Your task to perform on an android device: toggle wifi Image 0: 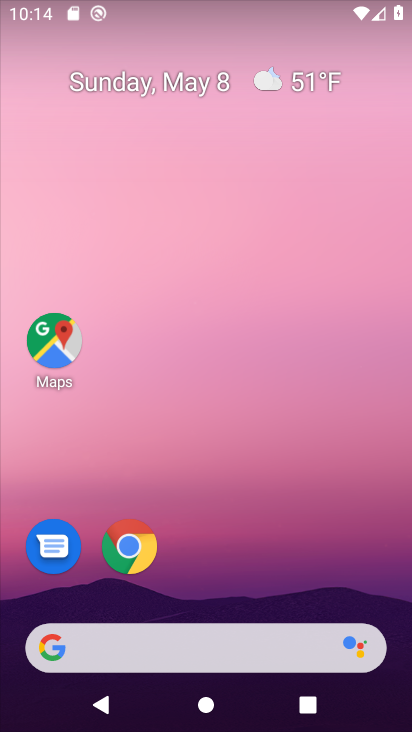
Step 0: drag from (389, 622) to (357, 54)
Your task to perform on an android device: toggle wifi Image 1: 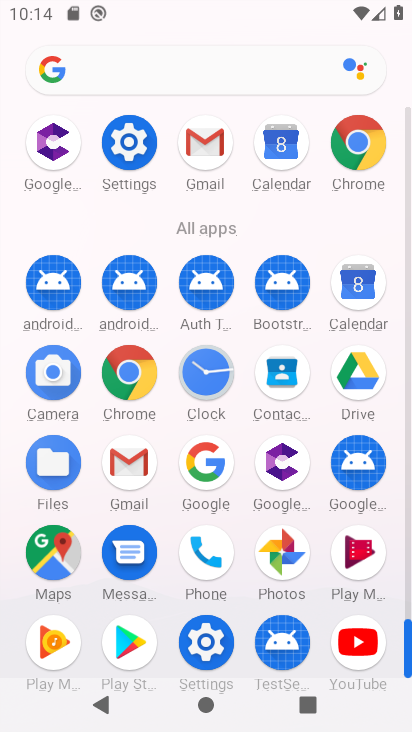
Step 1: click (201, 642)
Your task to perform on an android device: toggle wifi Image 2: 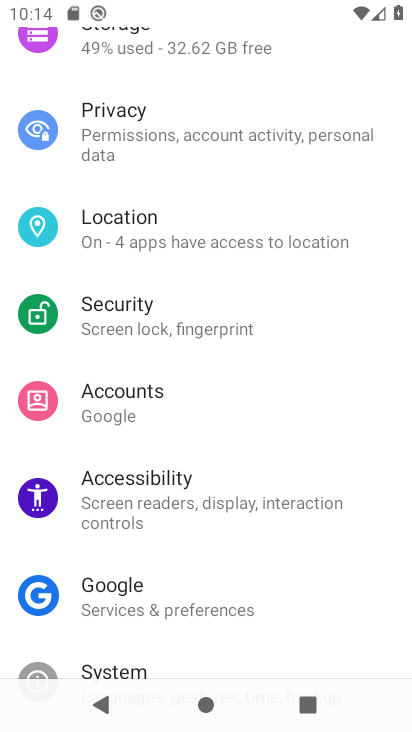
Step 2: drag from (363, 212) to (328, 585)
Your task to perform on an android device: toggle wifi Image 3: 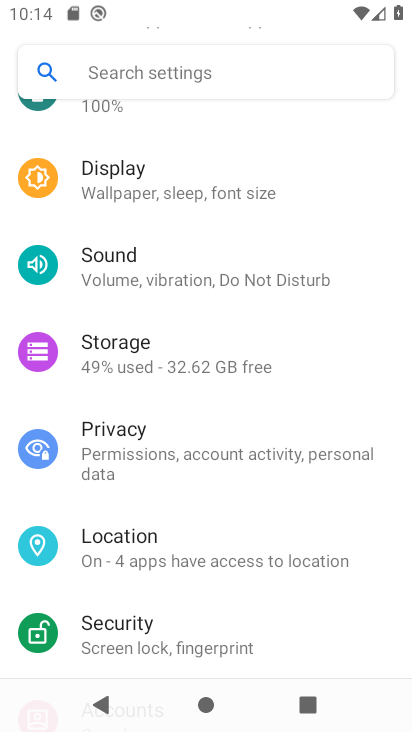
Step 3: drag from (357, 186) to (303, 600)
Your task to perform on an android device: toggle wifi Image 4: 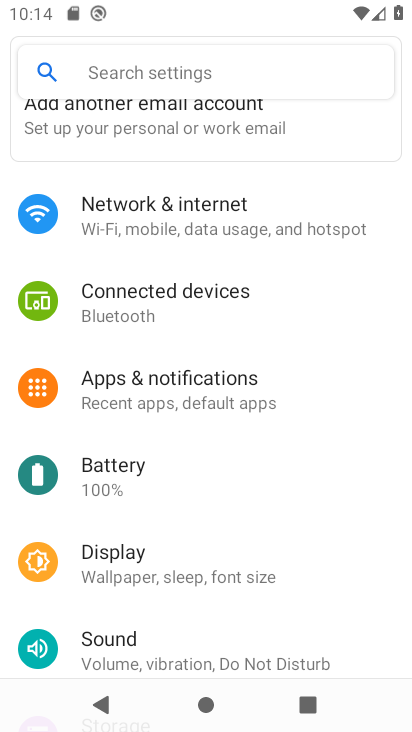
Step 4: click (107, 212)
Your task to perform on an android device: toggle wifi Image 5: 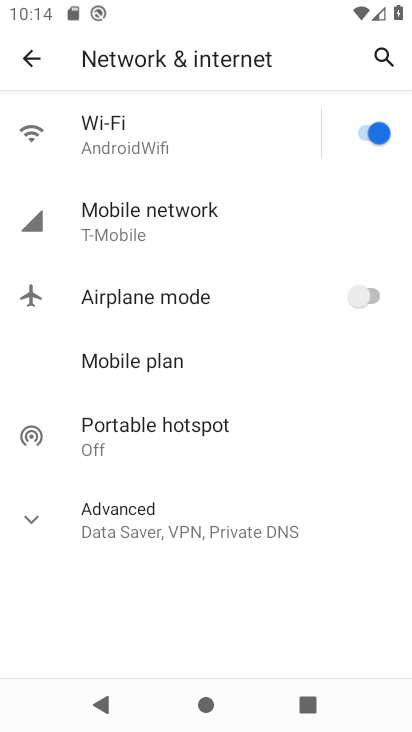
Step 5: click (359, 133)
Your task to perform on an android device: toggle wifi Image 6: 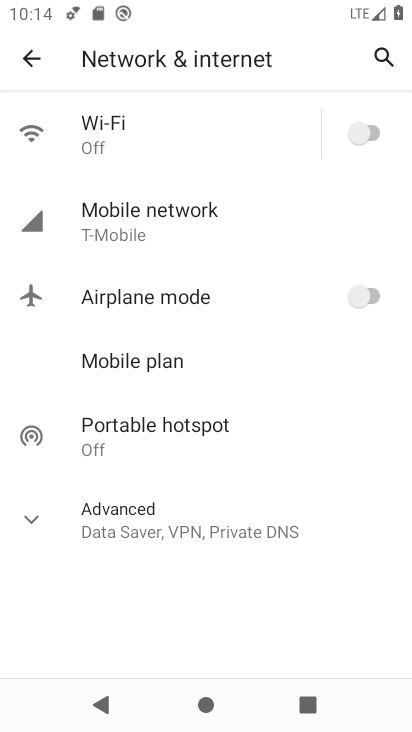
Step 6: task complete